Your task to perform on an android device: stop showing notifications on the lock screen Image 0: 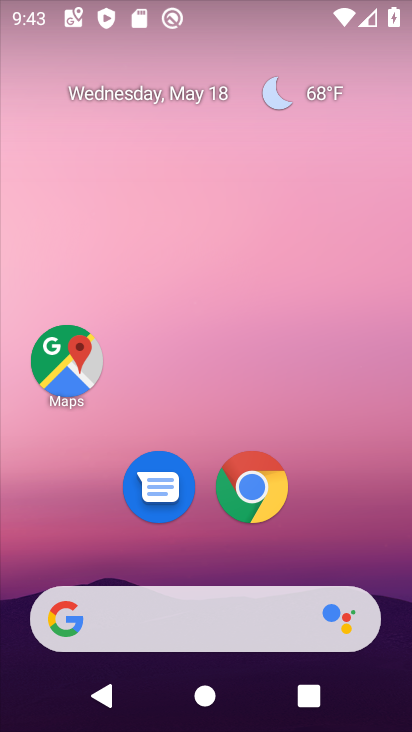
Step 0: drag from (348, 529) to (348, 131)
Your task to perform on an android device: stop showing notifications on the lock screen Image 1: 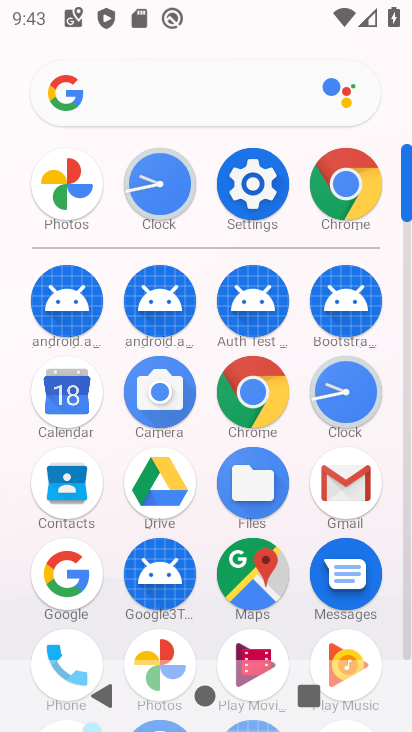
Step 1: drag from (294, 628) to (279, 293)
Your task to perform on an android device: stop showing notifications on the lock screen Image 2: 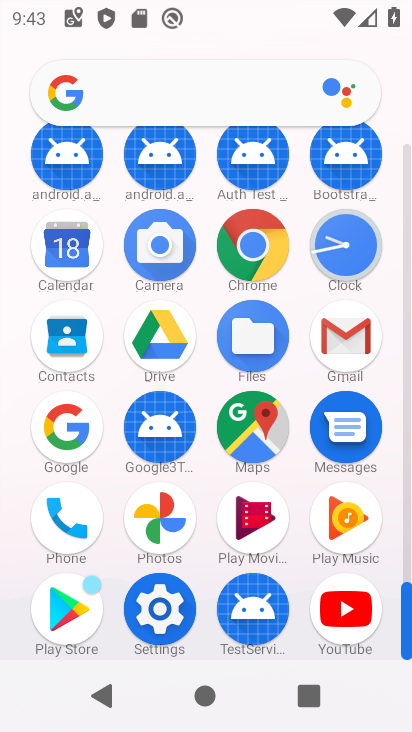
Step 2: click (153, 623)
Your task to perform on an android device: stop showing notifications on the lock screen Image 3: 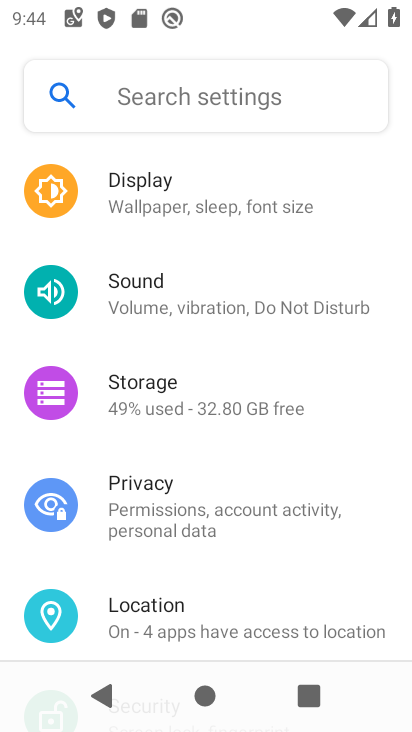
Step 3: drag from (252, 228) to (295, 594)
Your task to perform on an android device: stop showing notifications on the lock screen Image 4: 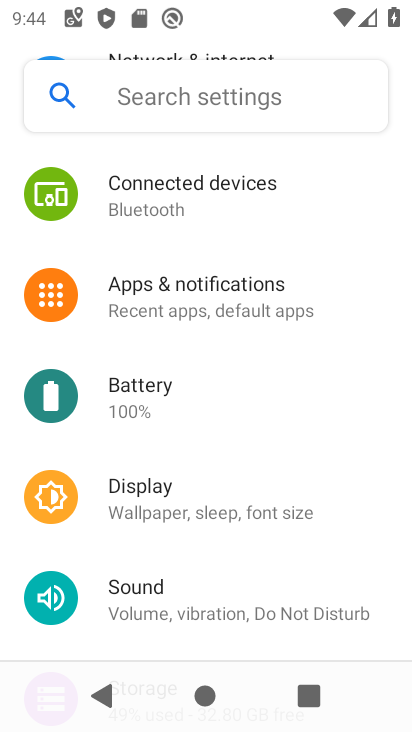
Step 4: click (198, 290)
Your task to perform on an android device: stop showing notifications on the lock screen Image 5: 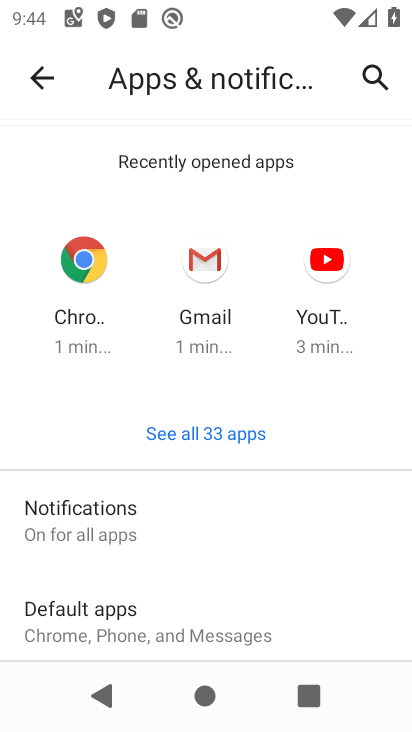
Step 5: click (184, 520)
Your task to perform on an android device: stop showing notifications on the lock screen Image 6: 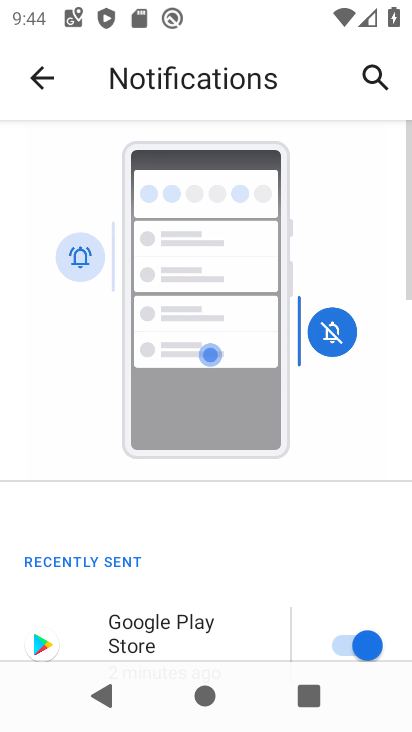
Step 6: drag from (189, 533) to (332, 180)
Your task to perform on an android device: stop showing notifications on the lock screen Image 7: 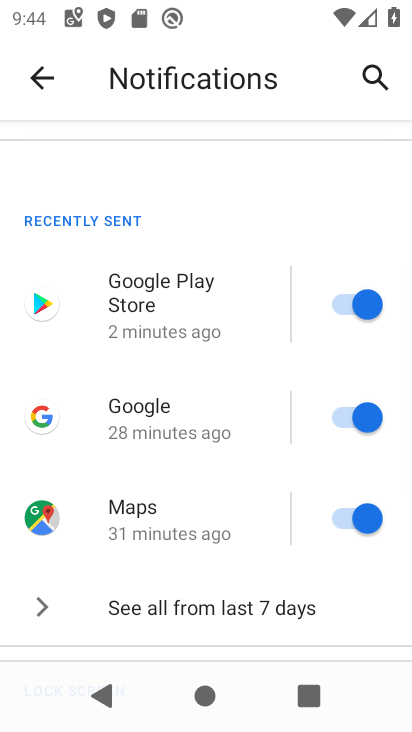
Step 7: drag from (232, 609) to (309, 230)
Your task to perform on an android device: stop showing notifications on the lock screen Image 8: 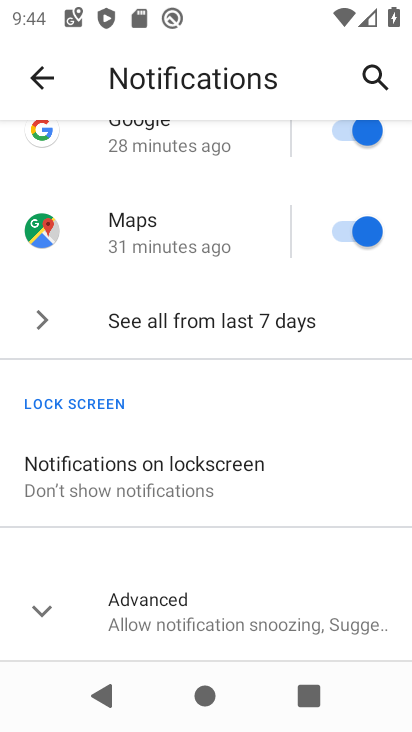
Step 8: click (214, 487)
Your task to perform on an android device: stop showing notifications on the lock screen Image 9: 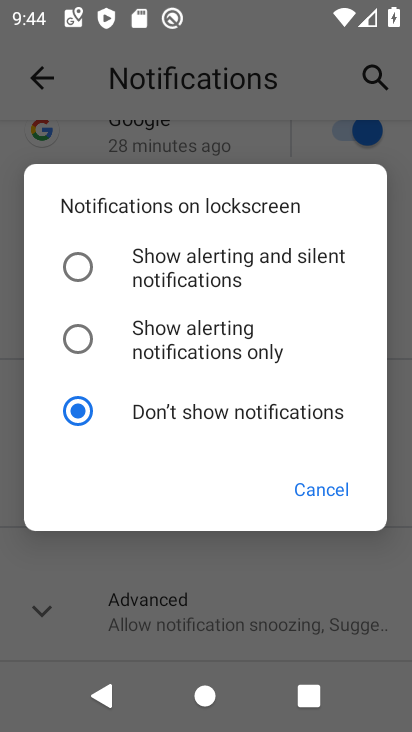
Step 9: task complete